Your task to perform on an android device: View the shopping cart on walmart.com. Search for logitech g903 on walmart.com, select the first entry, and add it to the cart. Image 0: 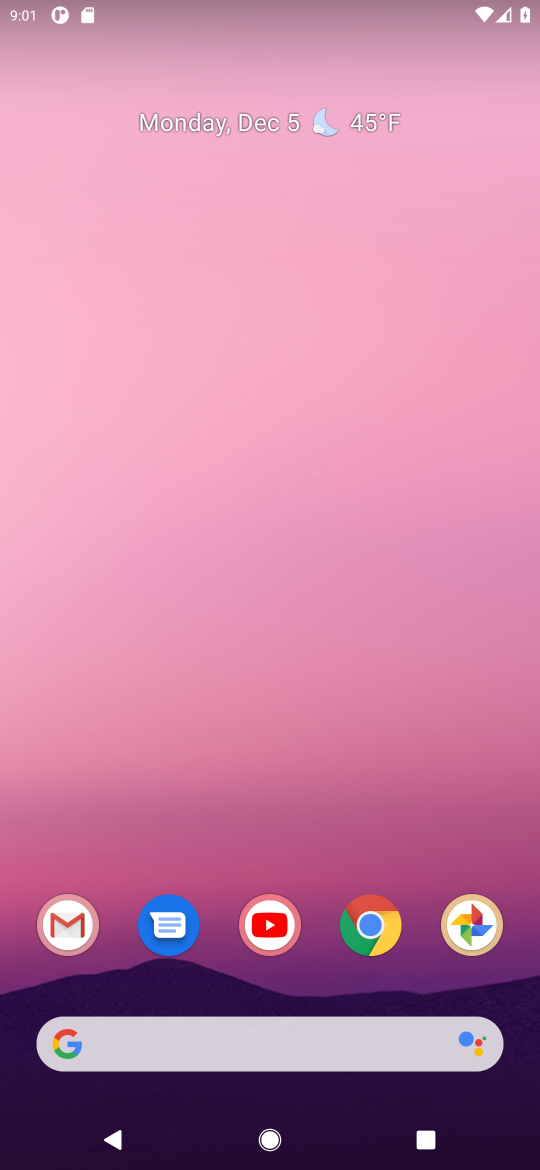
Step 0: click (382, 932)
Your task to perform on an android device: View the shopping cart on walmart.com. Search for logitech g903 on walmart.com, select the first entry, and add it to the cart. Image 1: 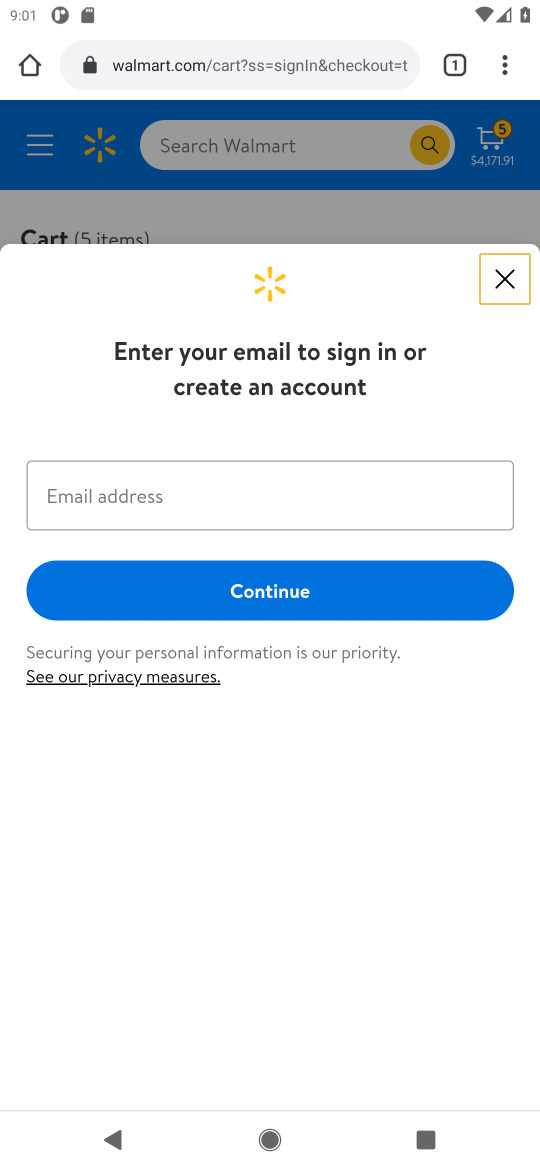
Step 1: click (509, 282)
Your task to perform on an android device: View the shopping cart on walmart.com. Search for logitech g903 on walmart.com, select the first entry, and add it to the cart. Image 2: 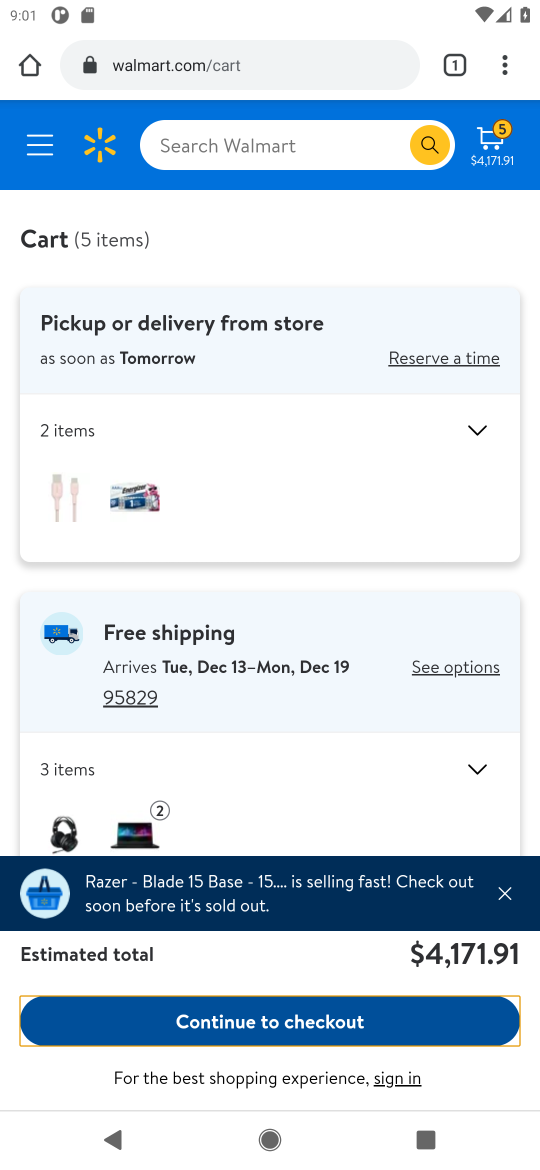
Step 2: click (493, 153)
Your task to perform on an android device: View the shopping cart on walmart.com. Search for logitech g903 on walmart.com, select the first entry, and add it to the cart. Image 3: 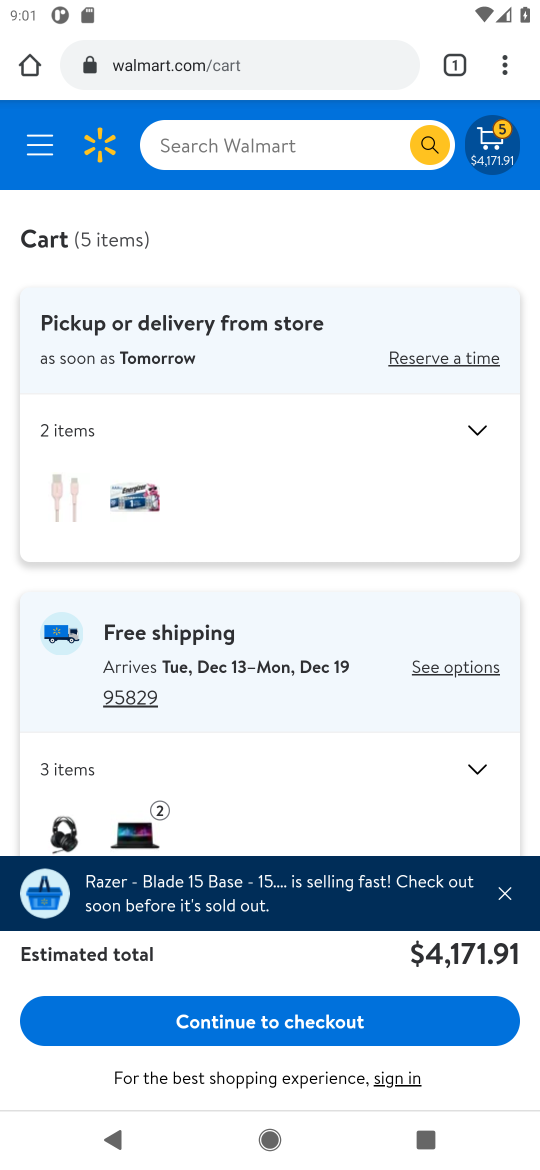
Step 3: click (197, 154)
Your task to perform on an android device: View the shopping cart on walmart.com. Search for logitech g903 on walmart.com, select the first entry, and add it to the cart. Image 4: 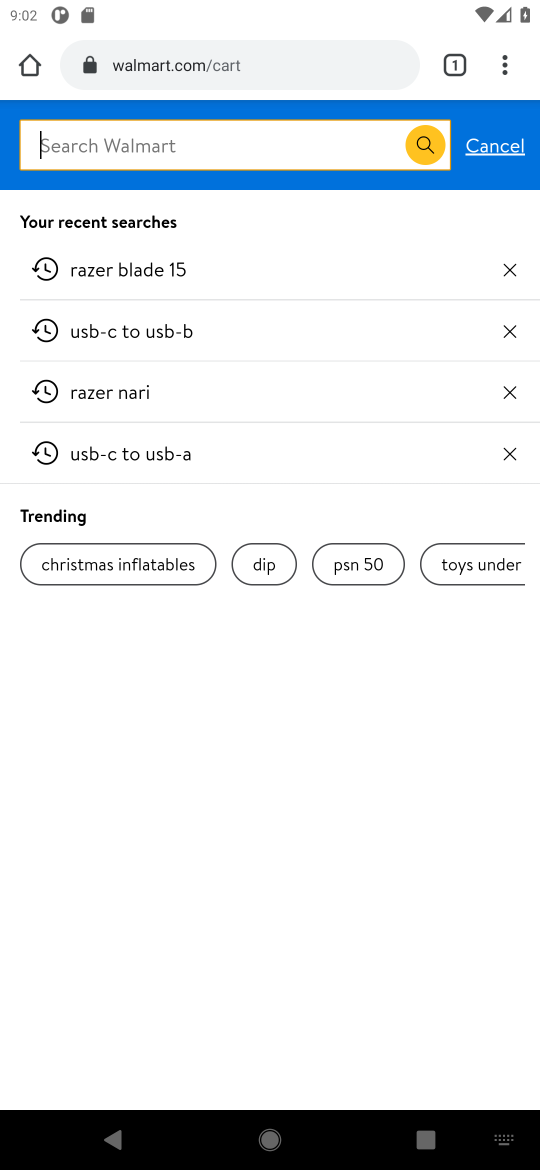
Step 4: type " logitech g903 "
Your task to perform on an android device: View the shopping cart on walmart.com. Search for logitech g903 on walmart.com, select the first entry, and add it to the cart. Image 5: 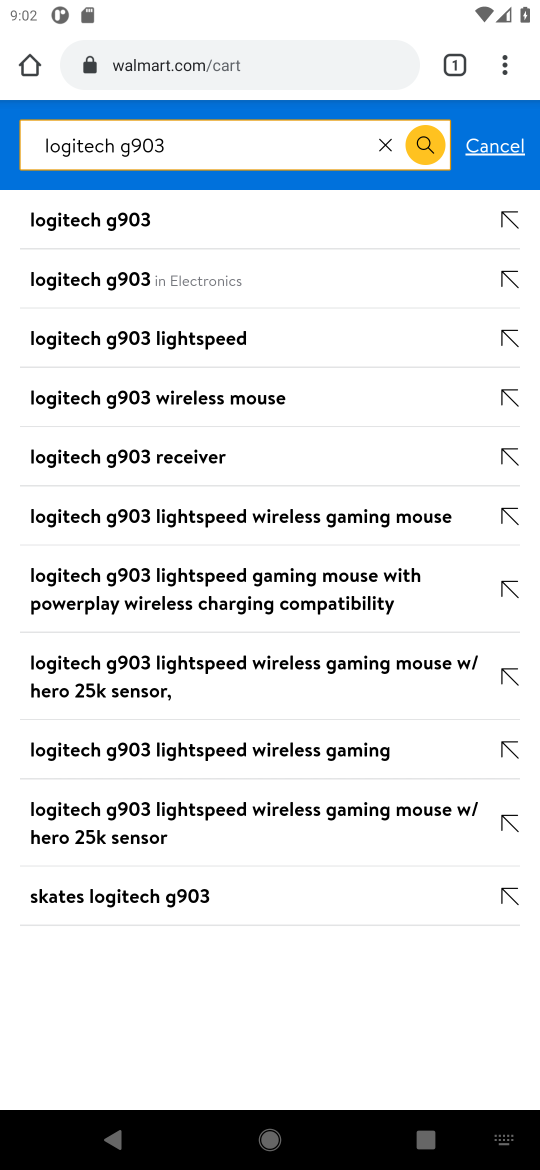
Step 5: click (108, 233)
Your task to perform on an android device: View the shopping cart on walmart.com. Search for logitech g903 on walmart.com, select the first entry, and add it to the cart. Image 6: 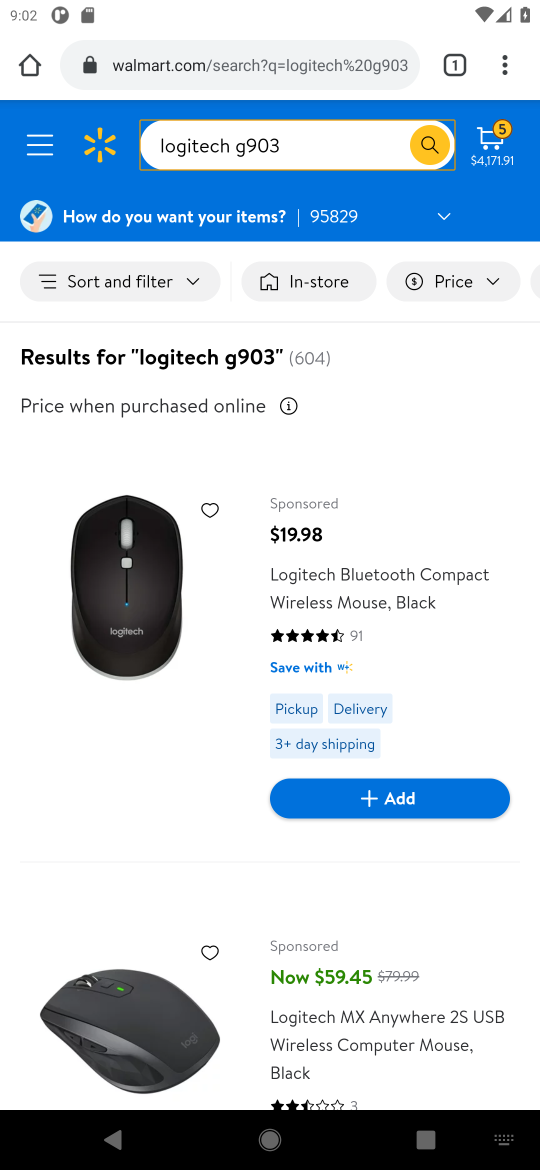
Step 6: task complete